Your task to perform on an android device: What's the news about the US? Image 0: 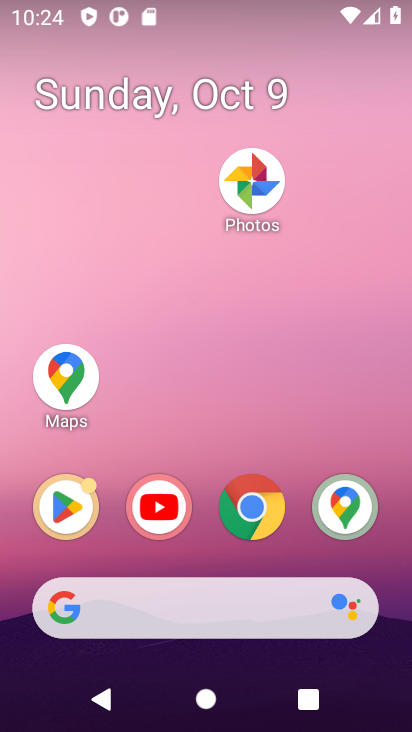
Step 0: drag from (202, 568) to (151, 27)
Your task to perform on an android device: What's the news about the US? Image 1: 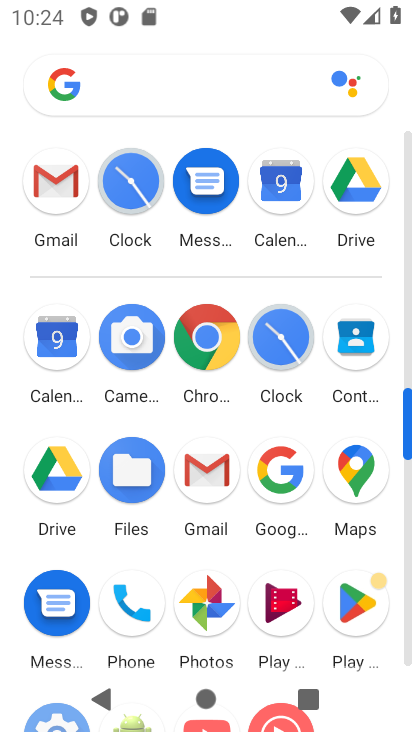
Step 1: click (203, 339)
Your task to perform on an android device: What's the news about the US? Image 2: 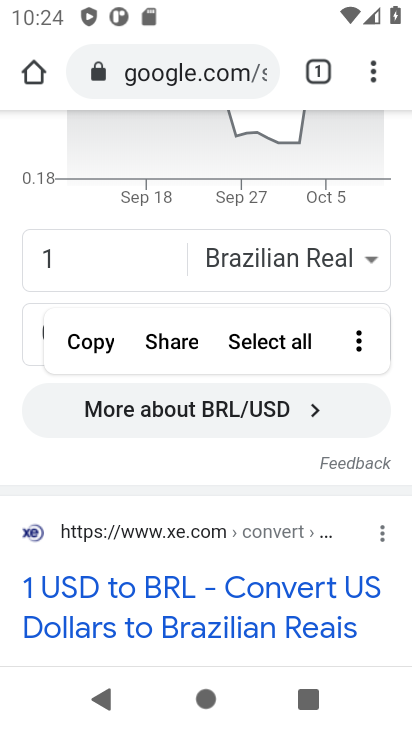
Step 2: click (175, 75)
Your task to perform on an android device: What's the news about the US? Image 3: 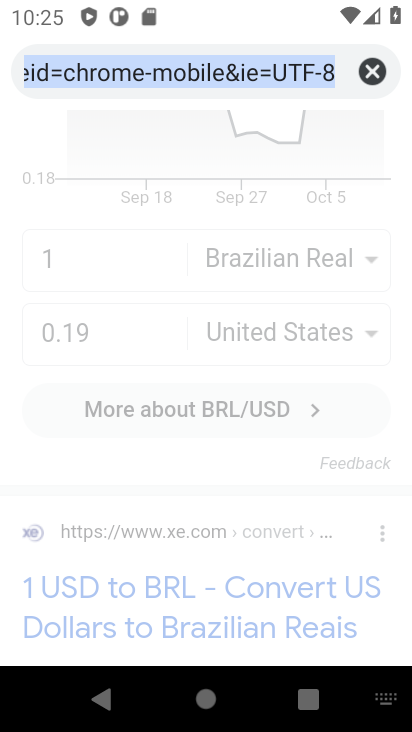
Step 3: type "What's the news about the US"
Your task to perform on an android device: What's the news about the US? Image 4: 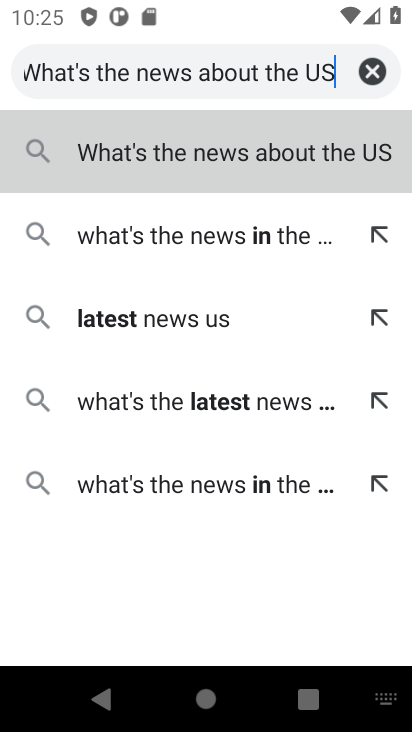
Step 4: press enter
Your task to perform on an android device: What's the news about the US? Image 5: 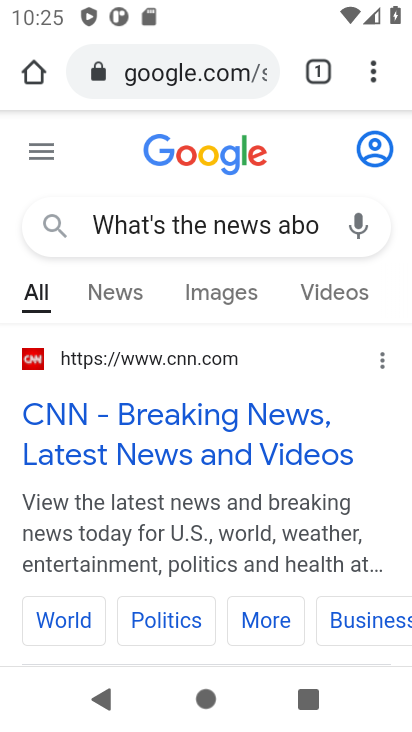
Step 5: drag from (298, 536) to (244, 167)
Your task to perform on an android device: What's the news about the US? Image 6: 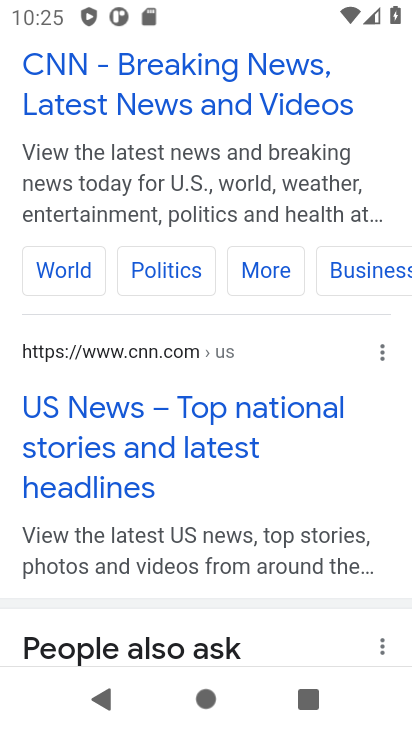
Step 6: click (189, 408)
Your task to perform on an android device: What's the news about the US? Image 7: 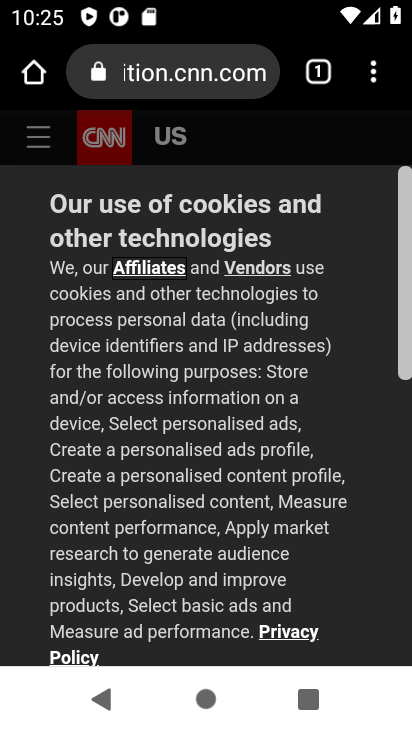
Step 7: task complete